Your task to perform on an android device: empty trash in google photos Image 0: 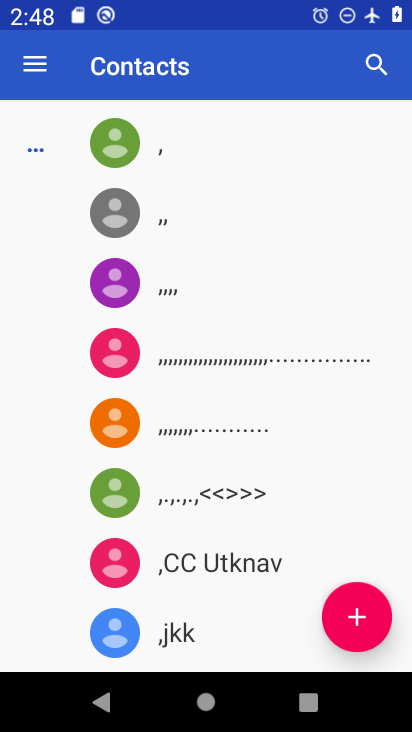
Step 0: press back button
Your task to perform on an android device: empty trash in google photos Image 1: 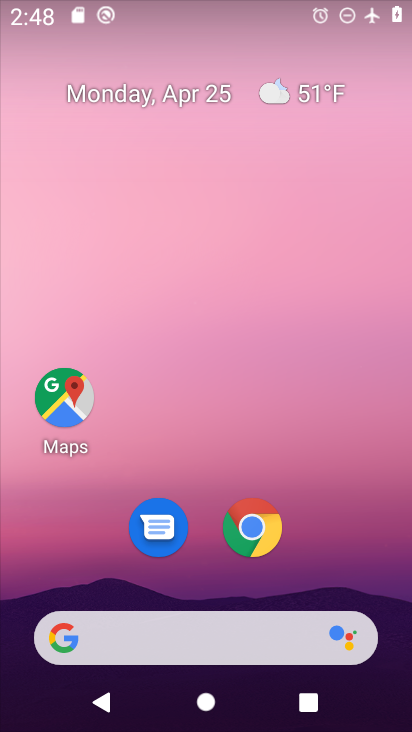
Step 1: drag from (359, 512) to (261, 1)
Your task to perform on an android device: empty trash in google photos Image 2: 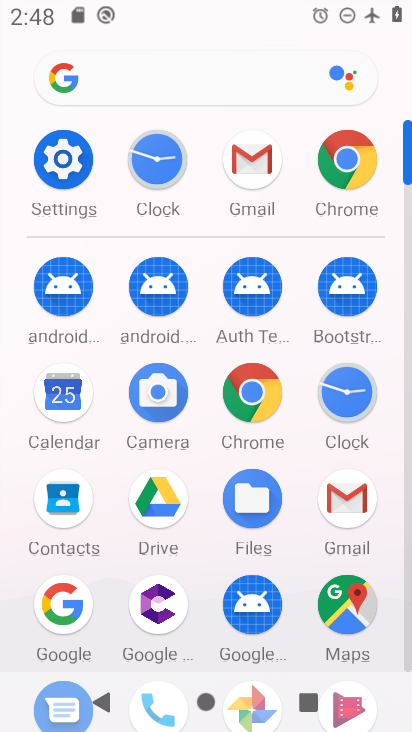
Step 2: drag from (3, 545) to (10, 289)
Your task to perform on an android device: empty trash in google photos Image 3: 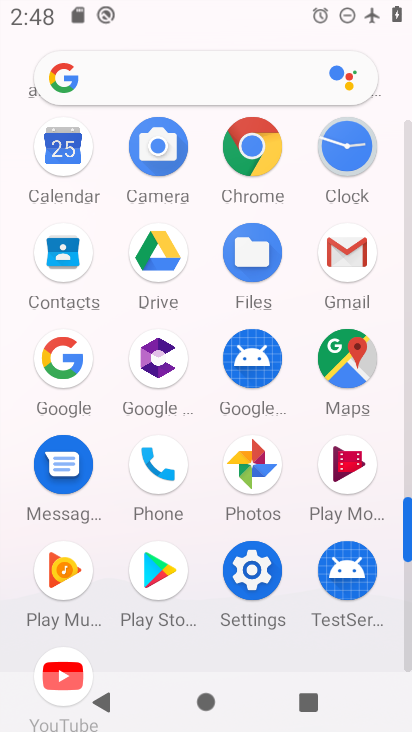
Step 3: click (245, 465)
Your task to perform on an android device: empty trash in google photos Image 4: 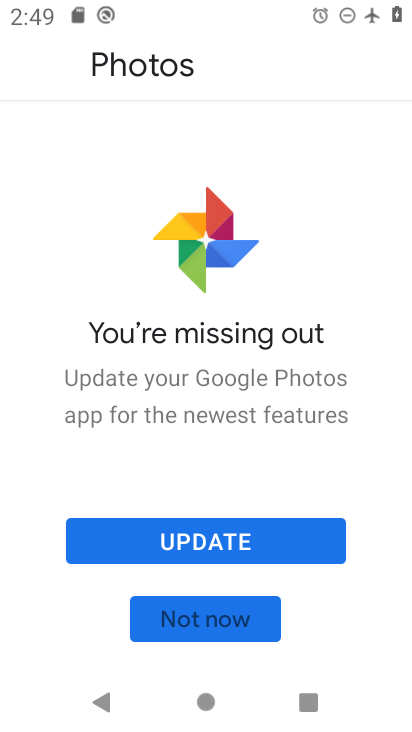
Step 4: click (240, 539)
Your task to perform on an android device: empty trash in google photos Image 5: 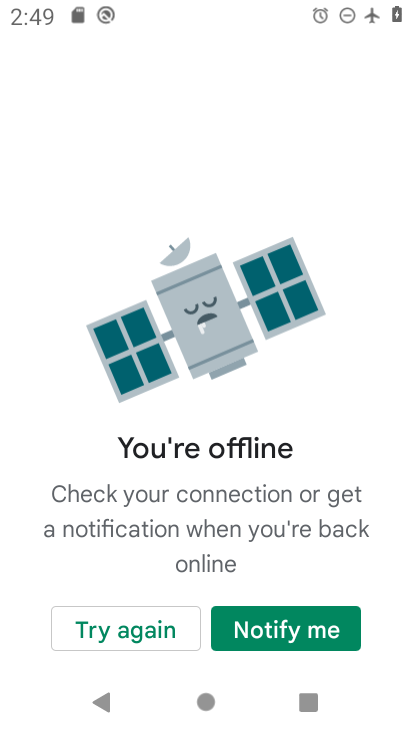
Step 5: click (168, 628)
Your task to perform on an android device: empty trash in google photos Image 6: 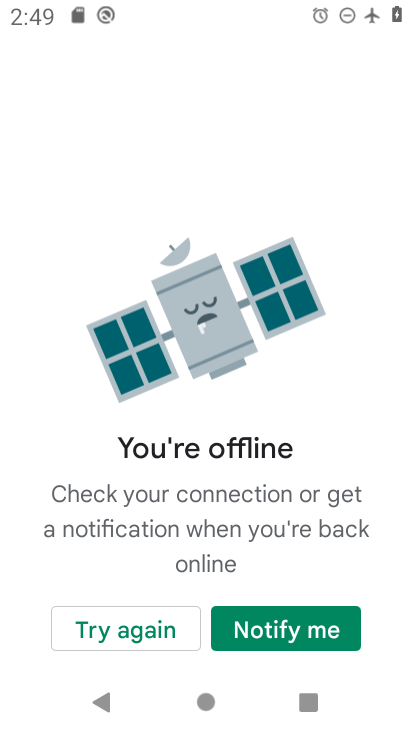
Step 6: task complete